Your task to perform on an android device: Clear the cart on ebay.com. Search for "beats solo 3" on ebay.com, select the first entry, and add it to the cart. Image 0: 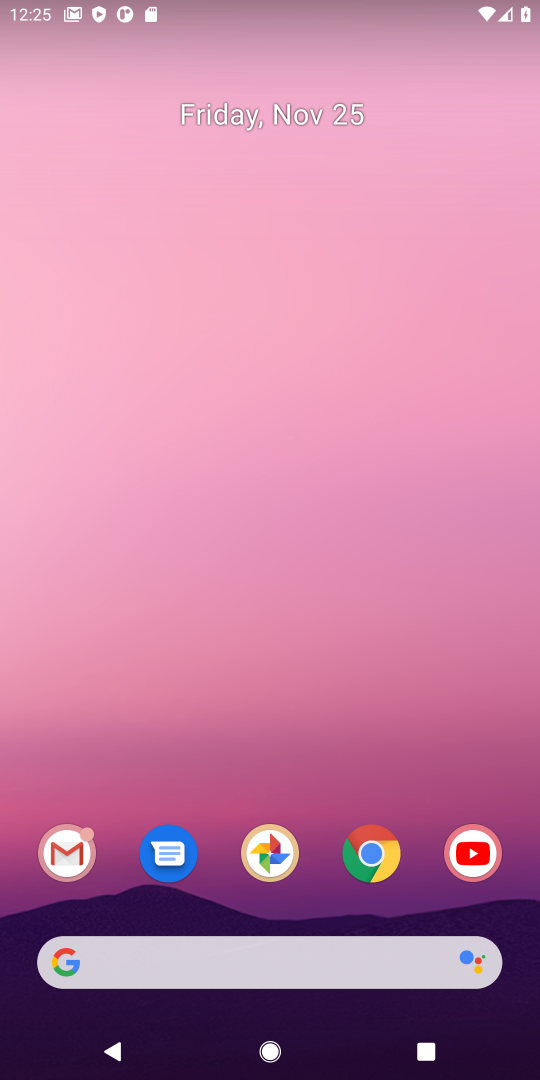
Step 0: click (223, 965)
Your task to perform on an android device: Clear the cart on ebay.com. Search for "beats solo 3" on ebay.com, select the first entry, and add it to the cart. Image 1: 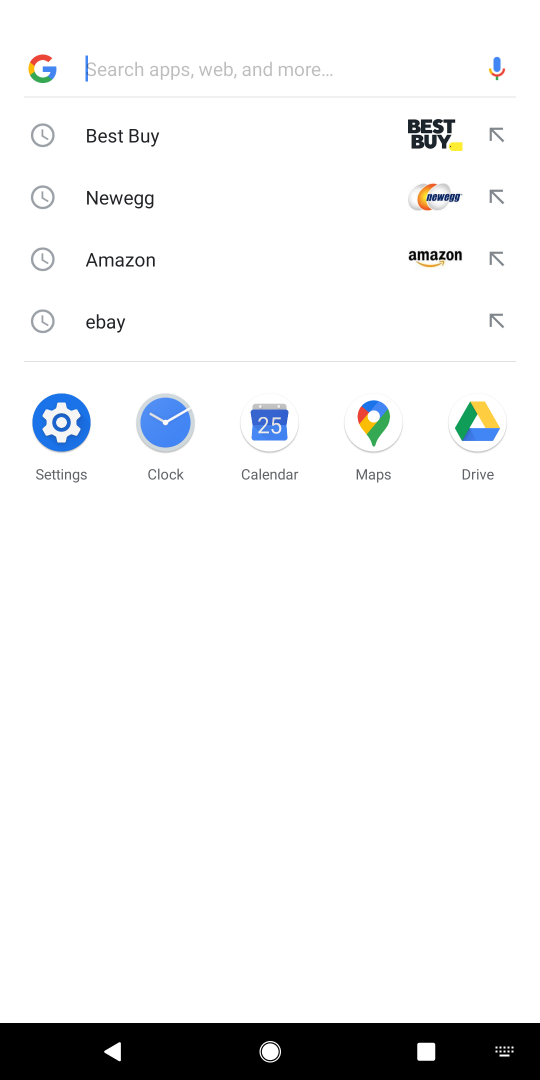
Step 1: click (175, 341)
Your task to perform on an android device: Clear the cart on ebay.com. Search for "beats solo 3" on ebay.com, select the first entry, and add it to the cart. Image 2: 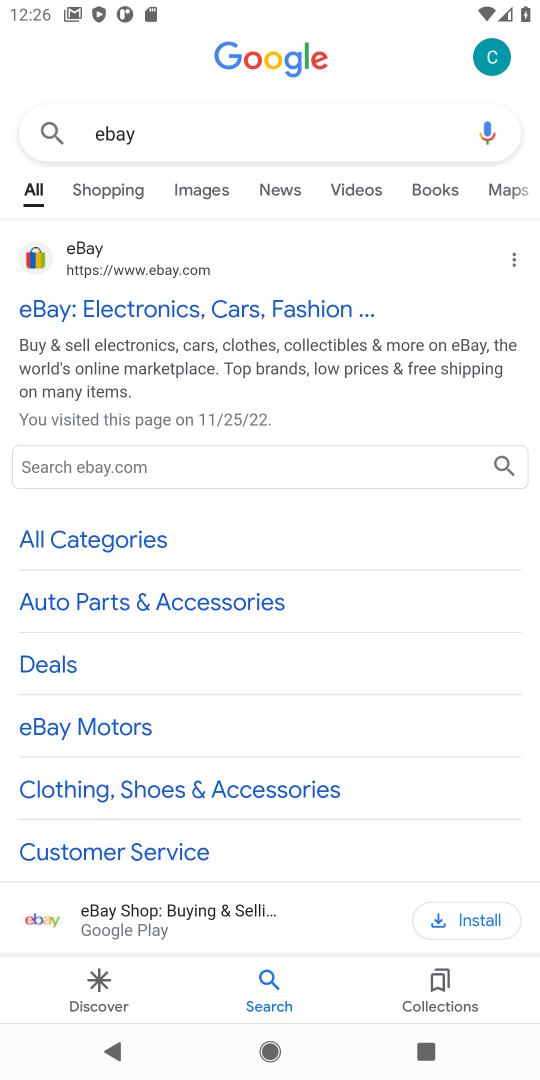
Step 2: click (166, 329)
Your task to perform on an android device: Clear the cart on ebay.com. Search for "beats solo 3" on ebay.com, select the first entry, and add it to the cart. Image 3: 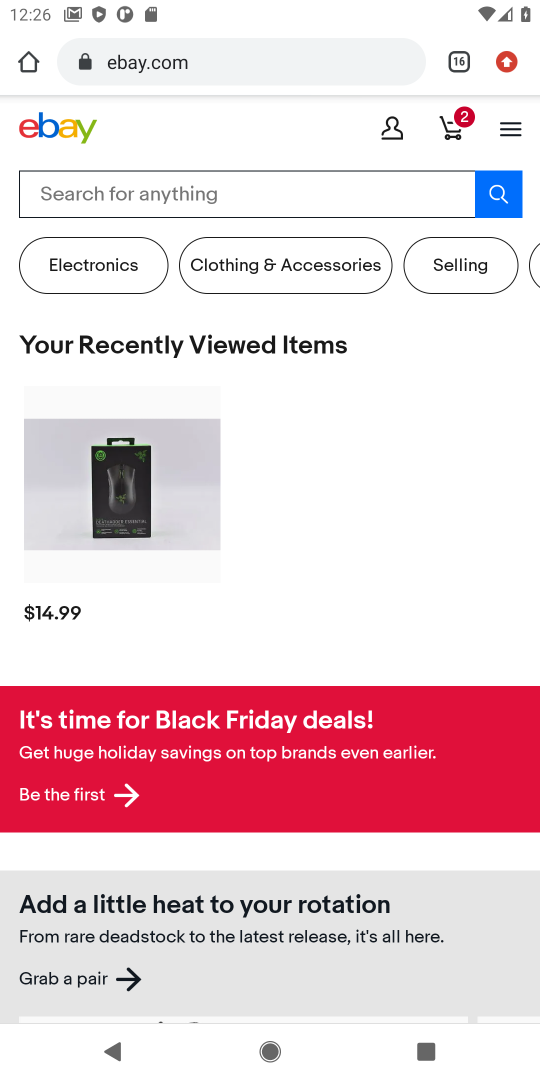
Step 3: click (164, 203)
Your task to perform on an android device: Clear the cart on ebay.com. Search for "beats solo 3" on ebay.com, select the first entry, and add it to the cart. Image 4: 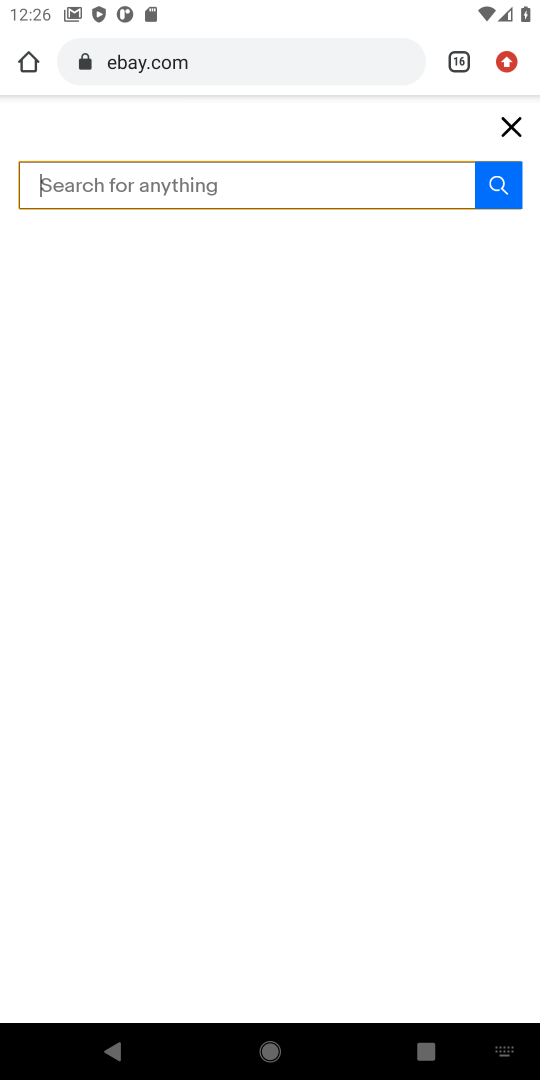
Step 4: type "beats solo 3"
Your task to perform on an android device: Clear the cart on ebay.com. Search for "beats solo 3" on ebay.com, select the first entry, and add it to the cart. Image 5: 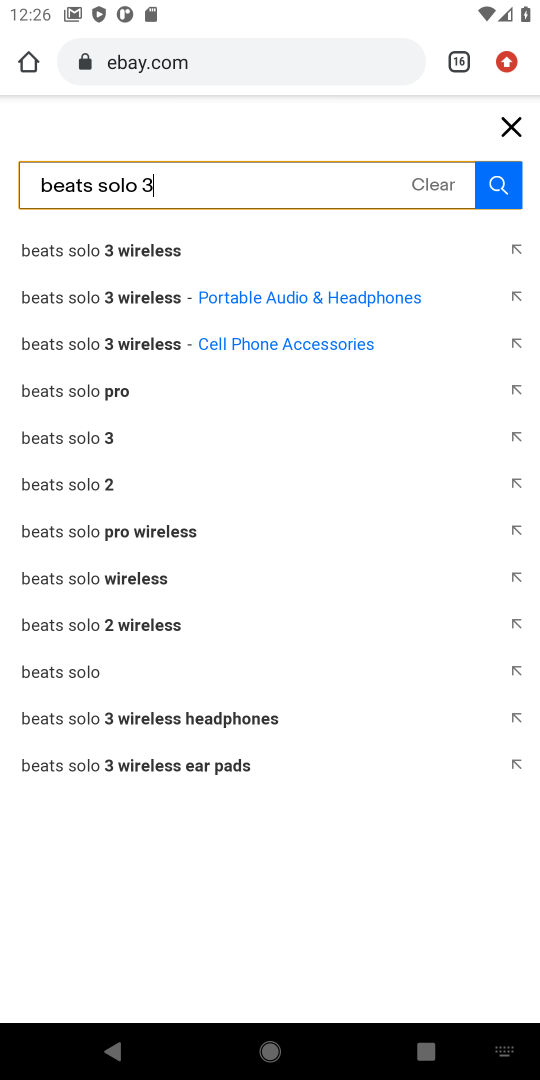
Step 5: click (86, 445)
Your task to perform on an android device: Clear the cart on ebay.com. Search for "beats solo 3" on ebay.com, select the first entry, and add it to the cart. Image 6: 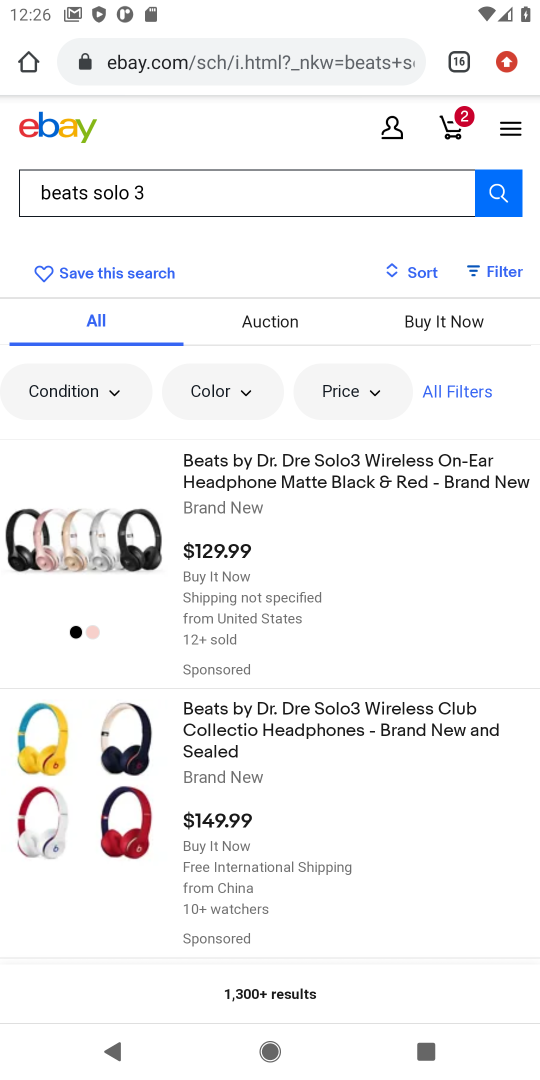
Step 6: click (269, 478)
Your task to perform on an android device: Clear the cart on ebay.com. Search for "beats solo 3" on ebay.com, select the first entry, and add it to the cart. Image 7: 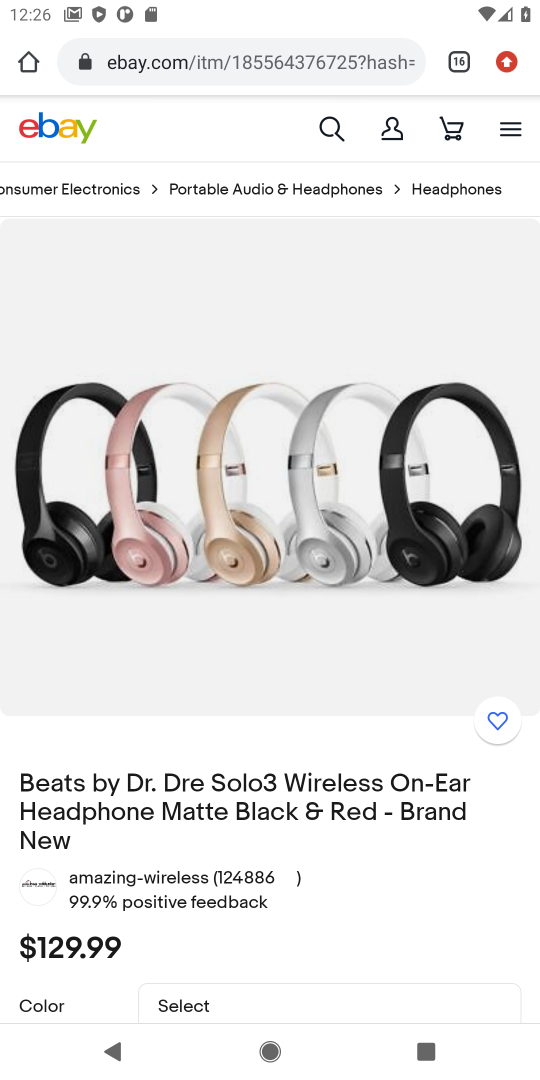
Step 7: drag from (159, 711) to (175, 329)
Your task to perform on an android device: Clear the cart on ebay.com. Search for "beats solo 3" on ebay.com, select the first entry, and add it to the cart. Image 8: 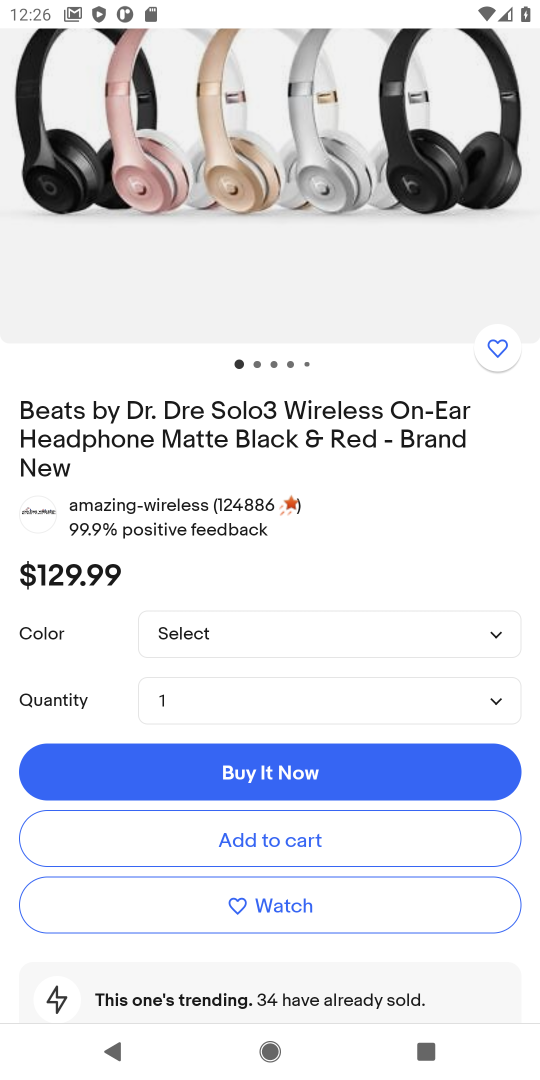
Step 8: click (273, 829)
Your task to perform on an android device: Clear the cart on ebay.com. Search for "beats solo 3" on ebay.com, select the first entry, and add it to the cart. Image 9: 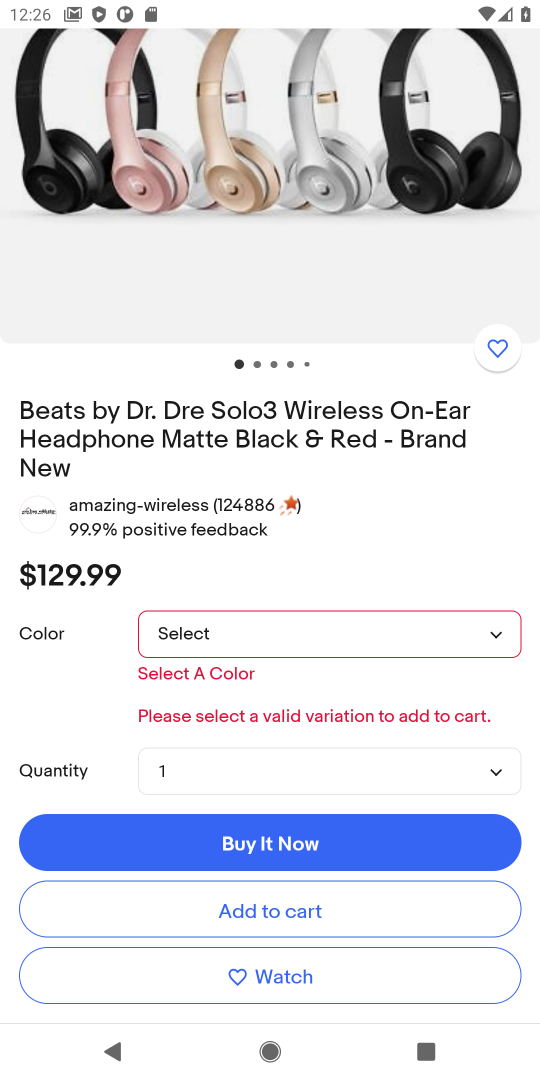
Step 9: click (306, 631)
Your task to perform on an android device: Clear the cart on ebay.com. Search for "beats solo 3" on ebay.com, select the first entry, and add it to the cart. Image 10: 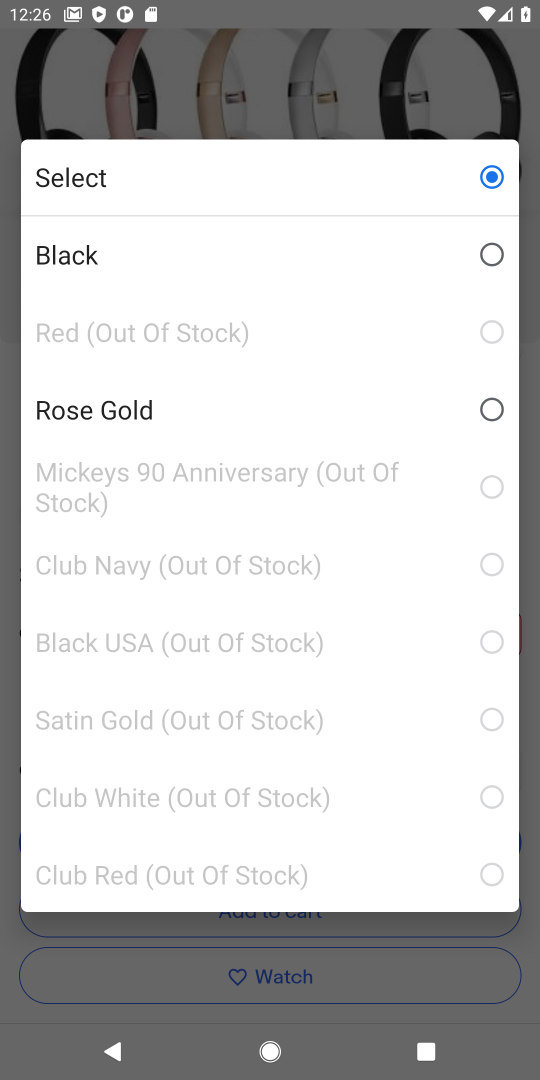
Step 10: click (293, 671)
Your task to perform on an android device: Clear the cart on ebay.com. Search for "beats solo 3" on ebay.com, select the first entry, and add it to the cart. Image 11: 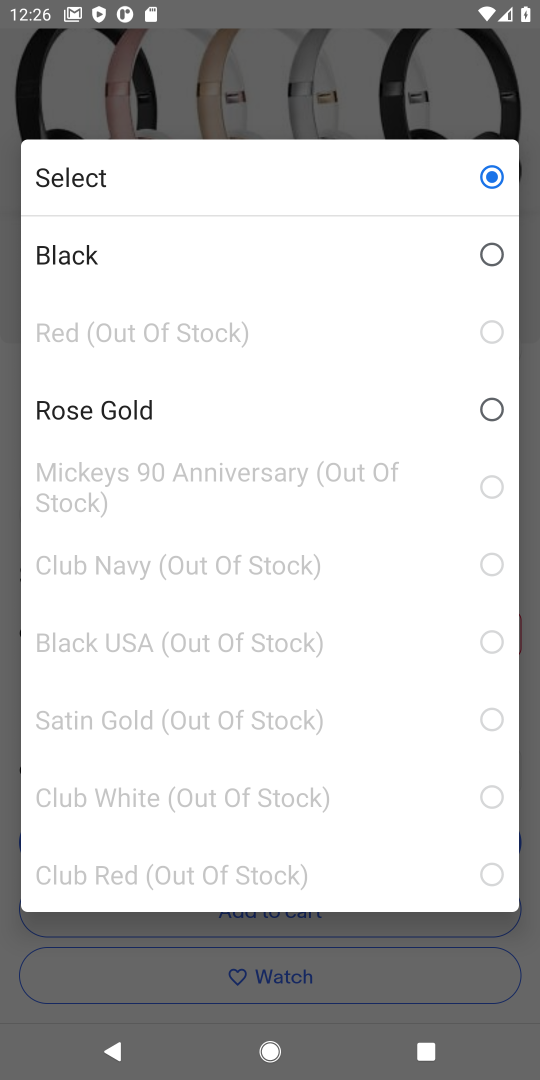
Step 11: click (293, 409)
Your task to perform on an android device: Clear the cart on ebay.com. Search for "beats solo 3" on ebay.com, select the first entry, and add it to the cart. Image 12: 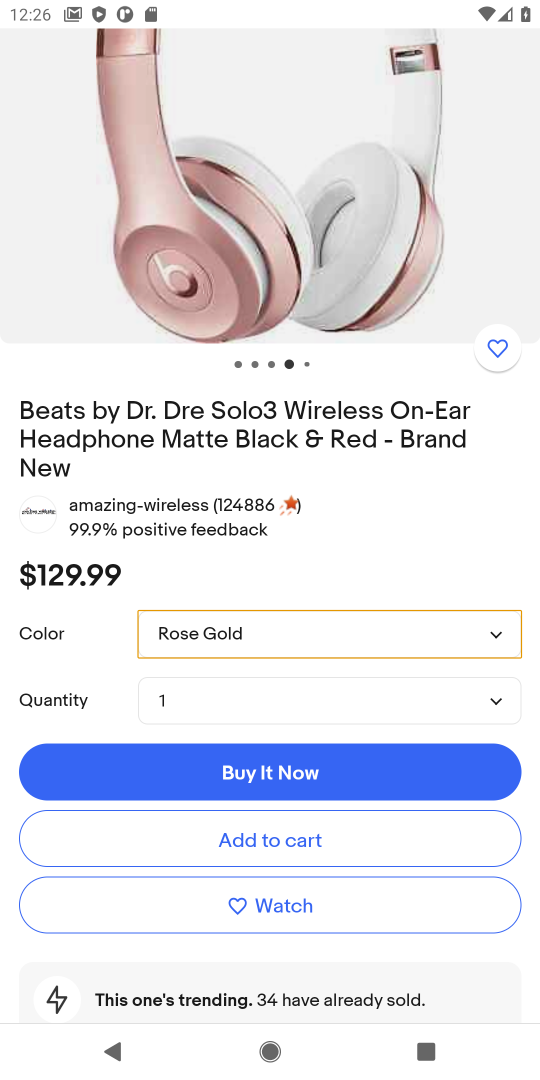
Step 12: click (353, 817)
Your task to perform on an android device: Clear the cart on ebay.com. Search for "beats solo 3" on ebay.com, select the first entry, and add it to the cart. Image 13: 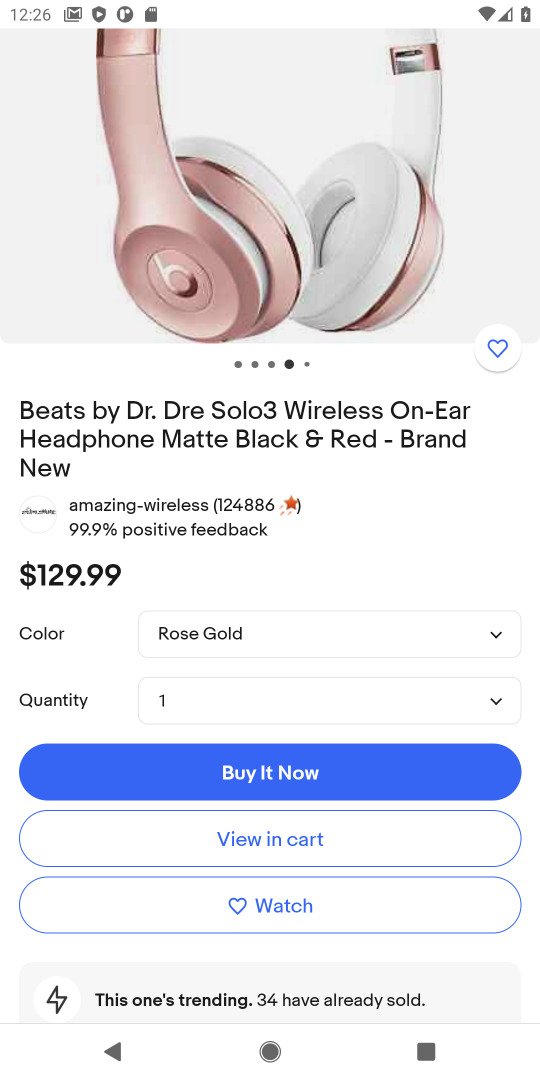
Step 13: task complete